Your task to perform on an android device: Open the map Image 0: 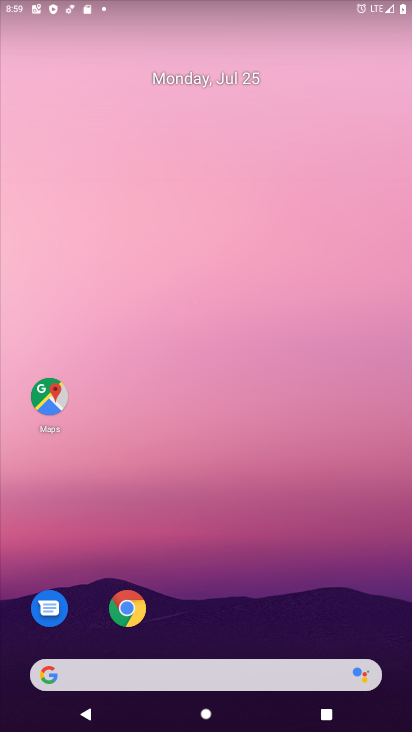
Step 0: drag from (220, 723) to (206, 61)
Your task to perform on an android device: Open the map Image 1: 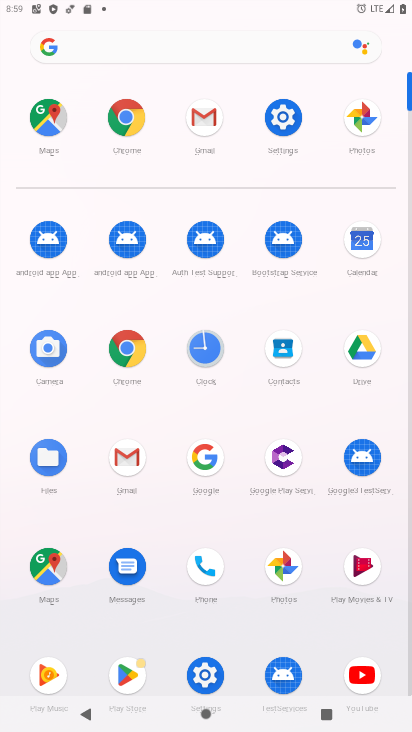
Step 1: click (47, 569)
Your task to perform on an android device: Open the map Image 2: 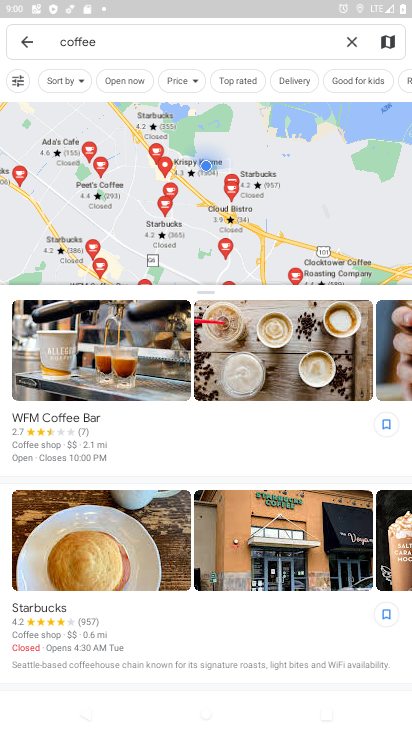
Step 2: task complete